Your task to perform on an android device: toggle location history Image 0: 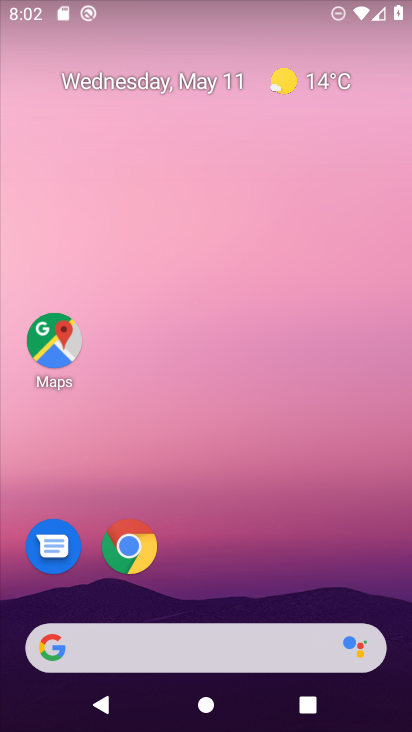
Step 0: drag from (198, 636) to (374, 464)
Your task to perform on an android device: toggle location history Image 1: 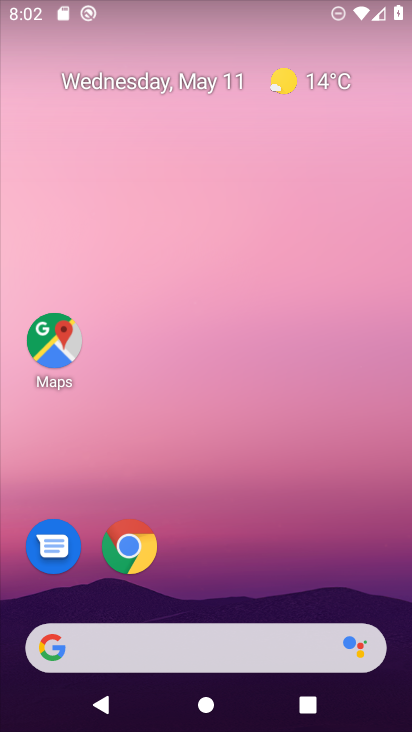
Step 1: drag from (221, 633) to (202, 102)
Your task to perform on an android device: toggle location history Image 2: 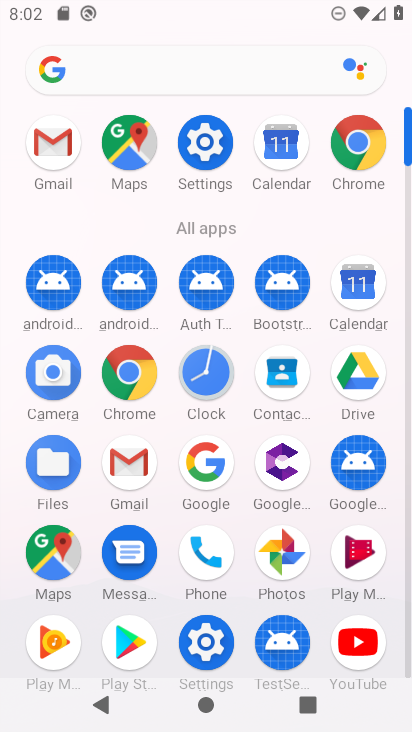
Step 2: click (210, 652)
Your task to perform on an android device: toggle location history Image 3: 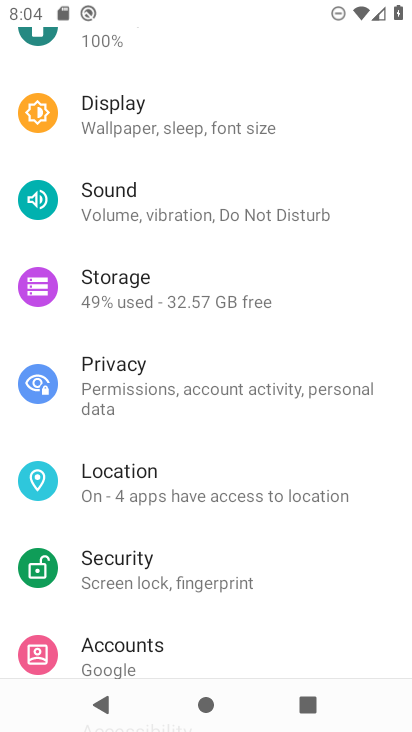
Step 3: click (120, 478)
Your task to perform on an android device: toggle location history Image 4: 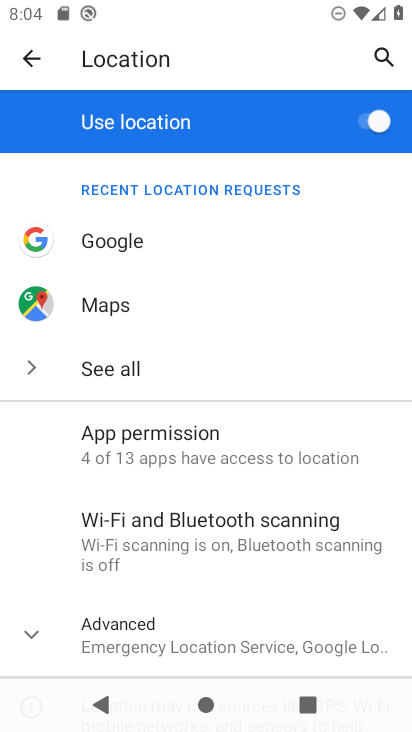
Step 4: drag from (247, 605) to (235, 293)
Your task to perform on an android device: toggle location history Image 5: 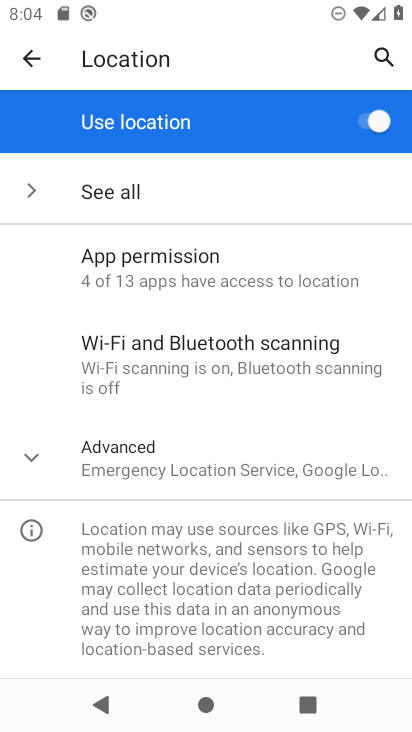
Step 5: click (180, 480)
Your task to perform on an android device: toggle location history Image 6: 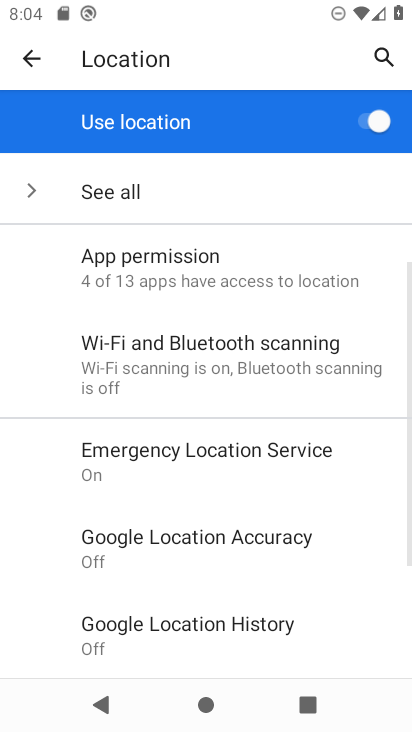
Step 6: drag from (311, 486) to (332, 321)
Your task to perform on an android device: toggle location history Image 7: 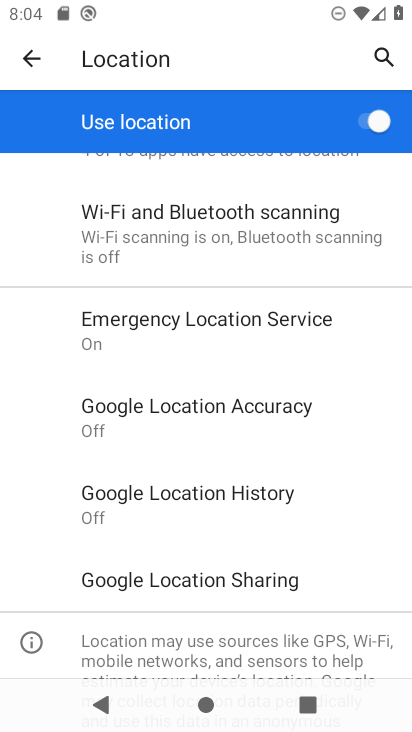
Step 7: click (259, 495)
Your task to perform on an android device: toggle location history Image 8: 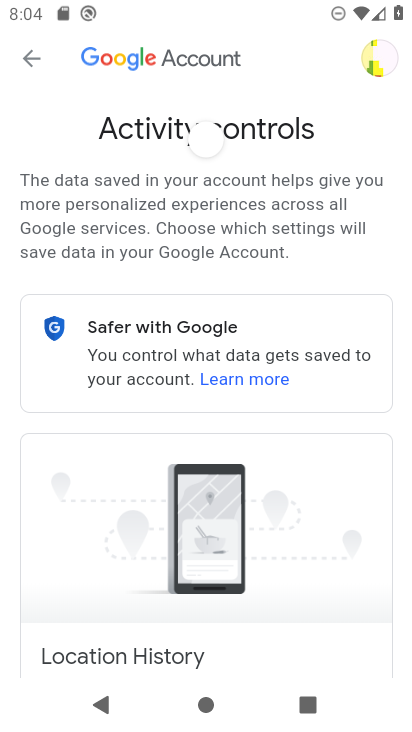
Step 8: drag from (199, 563) to (187, 66)
Your task to perform on an android device: toggle location history Image 9: 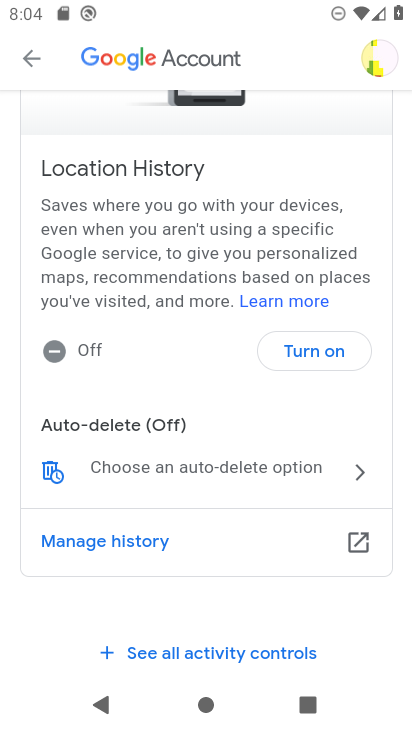
Step 9: drag from (260, 617) to (256, 313)
Your task to perform on an android device: toggle location history Image 10: 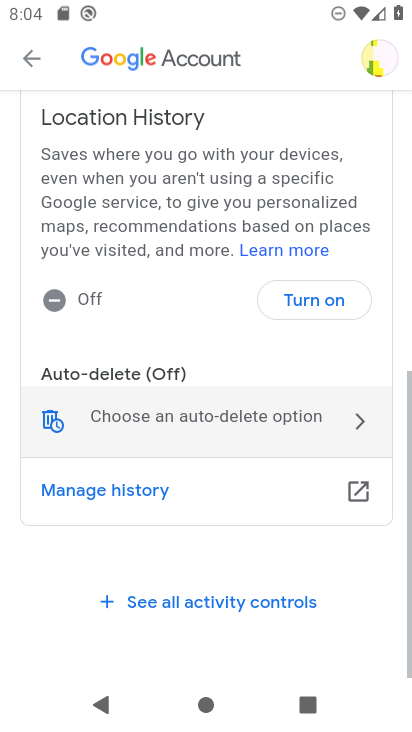
Step 10: click (324, 346)
Your task to perform on an android device: toggle location history Image 11: 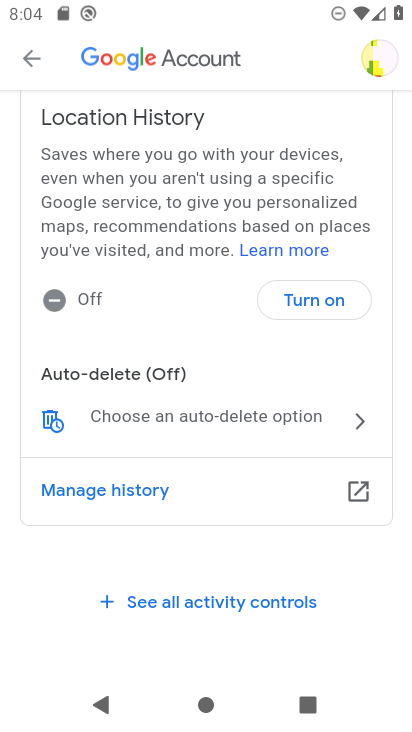
Step 11: click (347, 307)
Your task to perform on an android device: toggle location history Image 12: 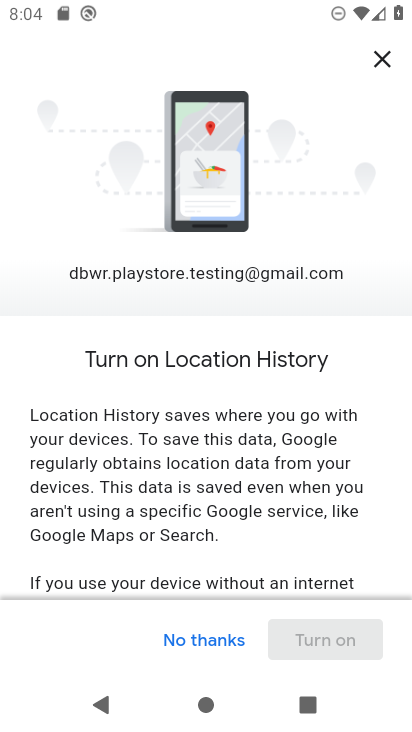
Step 12: drag from (300, 505) to (120, 86)
Your task to perform on an android device: toggle location history Image 13: 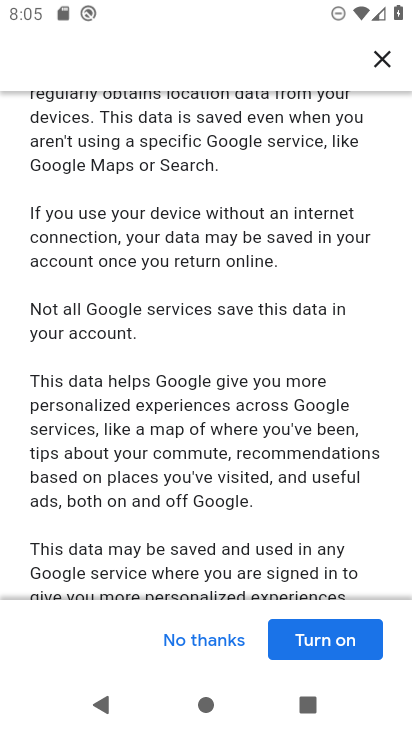
Step 13: click (359, 639)
Your task to perform on an android device: toggle location history Image 14: 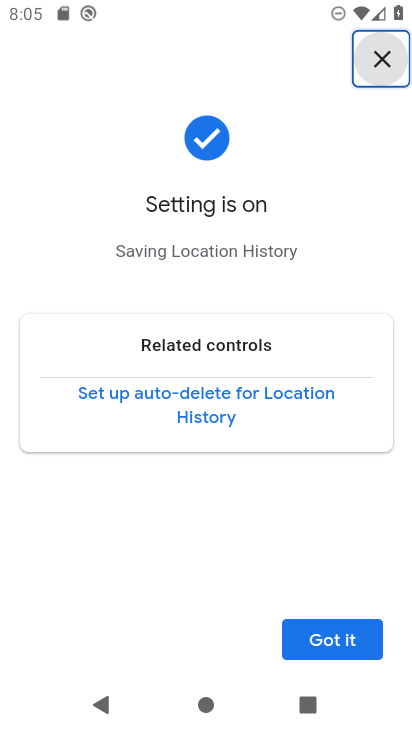
Step 14: click (342, 634)
Your task to perform on an android device: toggle location history Image 15: 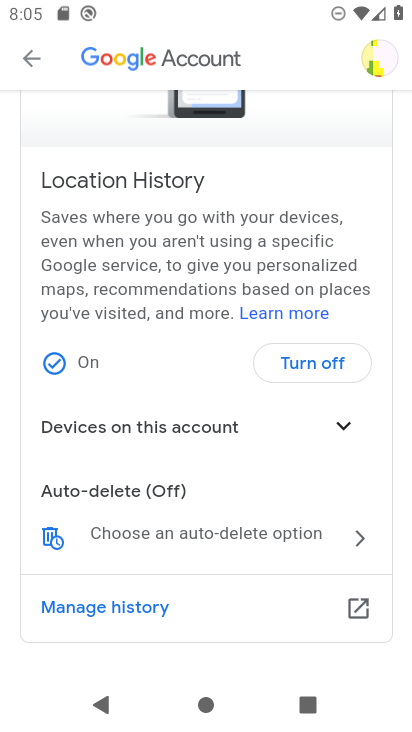
Step 15: task complete